Your task to perform on an android device: Open the stopwatch Image 0: 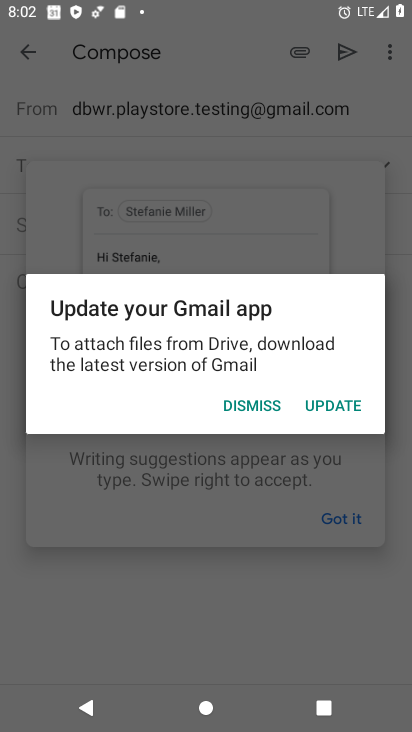
Step 0: press home button
Your task to perform on an android device: Open the stopwatch Image 1: 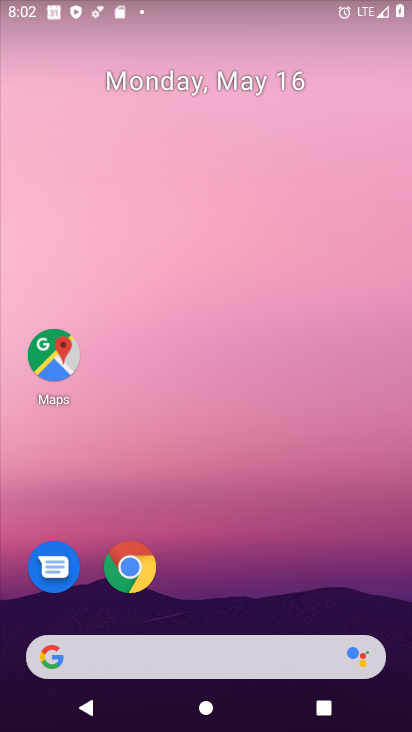
Step 1: drag from (200, 622) to (272, 81)
Your task to perform on an android device: Open the stopwatch Image 2: 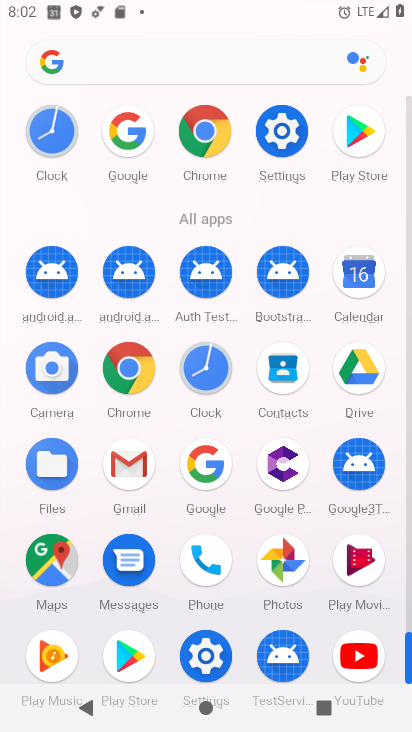
Step 2: click (42, 134)
Your task to perform on an android device: Open the stopwatch Image 3: 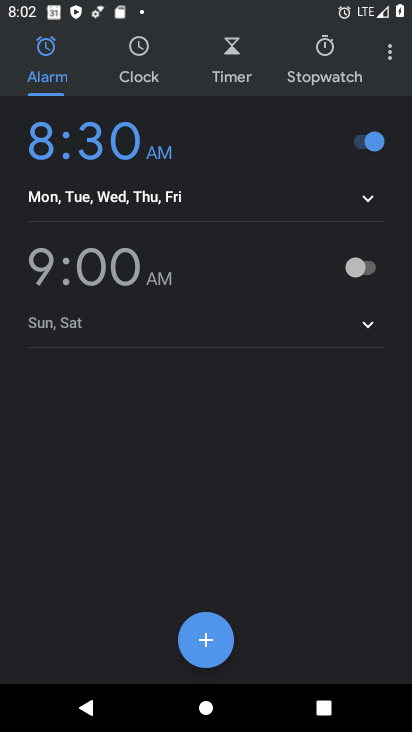
Step 3: click (342, 64)
Your task to perform on an android device: Open the stopwatch Image 4: 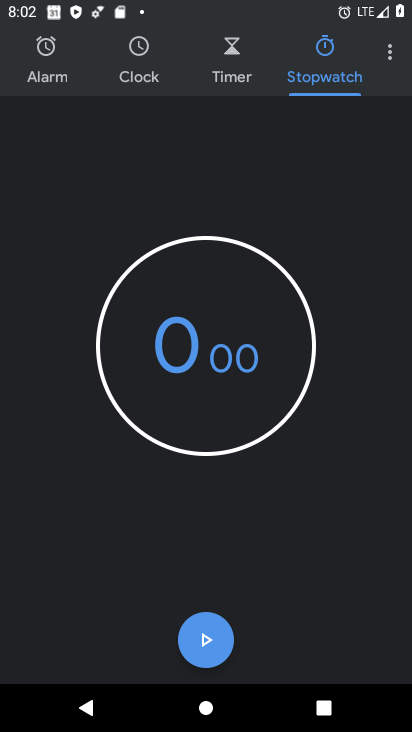
Step 4: task complete